Your task to perform on an android device: Open maps Image 0: 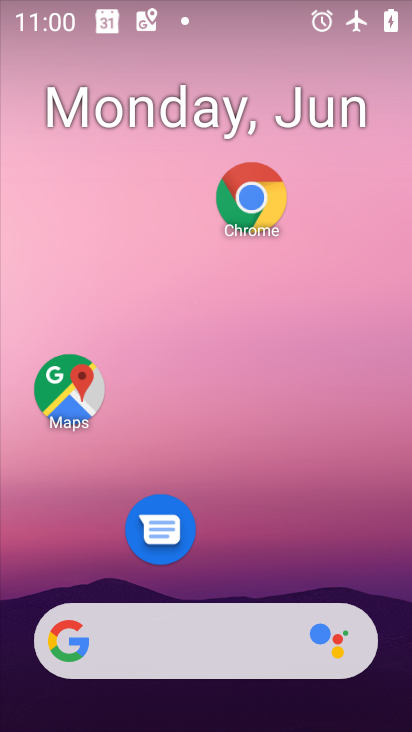
Step 0: click (72, 421)
Your task to perform on an android device: Open maps Image 1: 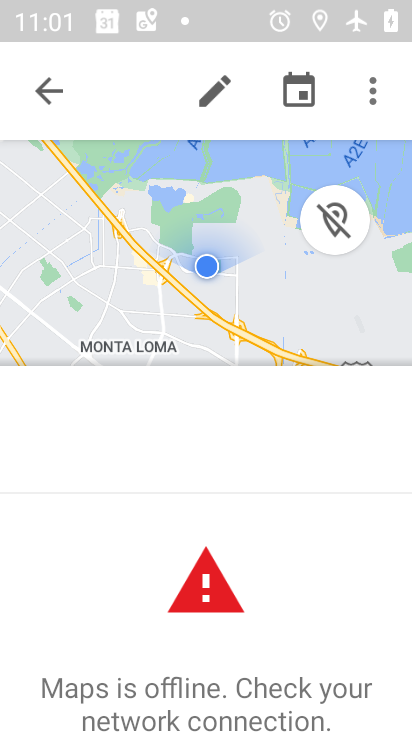
Step 1: task complete